Your task to perform on an android device: Open the Play Movies app and select the watchlist tab. Image 0: 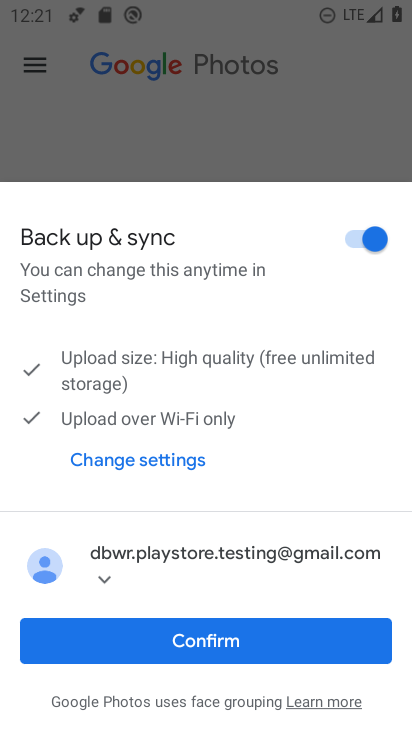
Step 0: press home button
Your task to perform on an android device: Open the Play Movies app and select the watchlist tab. Image 1: 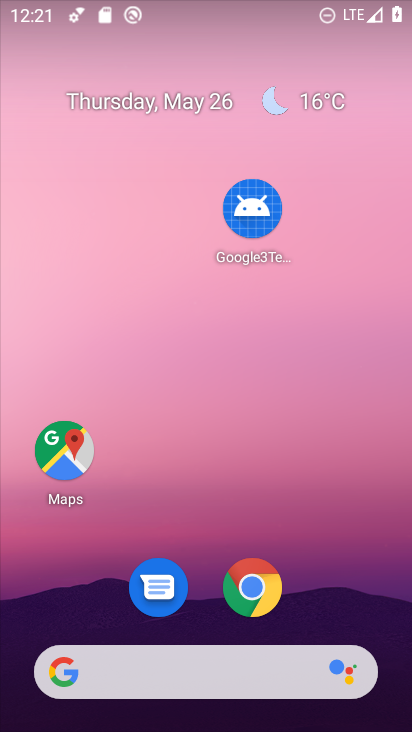
Step 1: drag from (128, 655) to (121, 2)
Your task to perform on an android device: Open the Play Movies app and select the watchlist tab. Image 2: 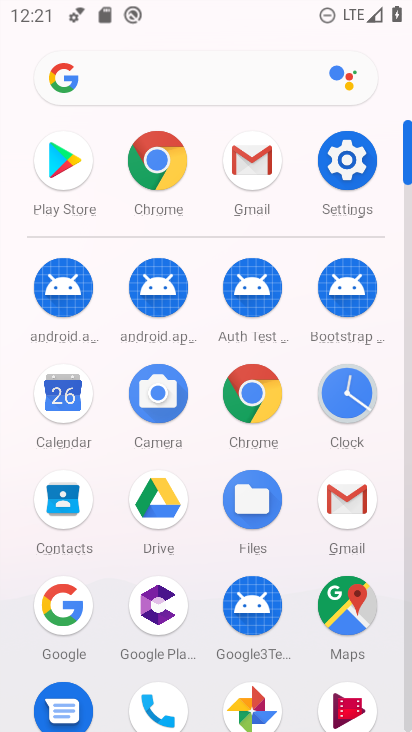
Step 2: click (359, 711)
Your task to perform on an android device: Open the Play Movies app and select the watchlist tab. Image 3: 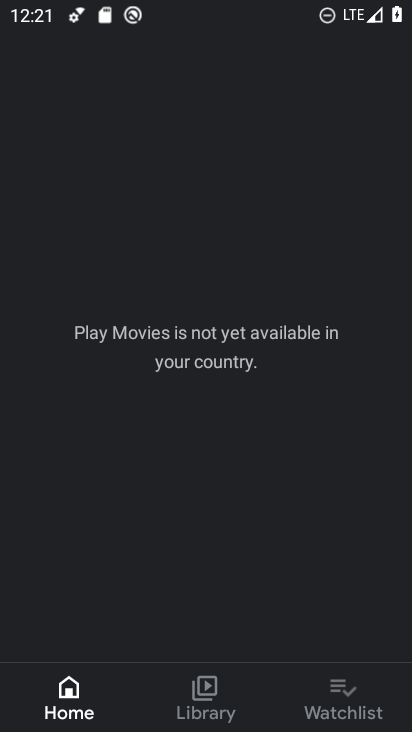
Step 3: click (316, 682)
Your task to perform on an android device: Open the Play Movies app and select the watchlist tab. Image 4: 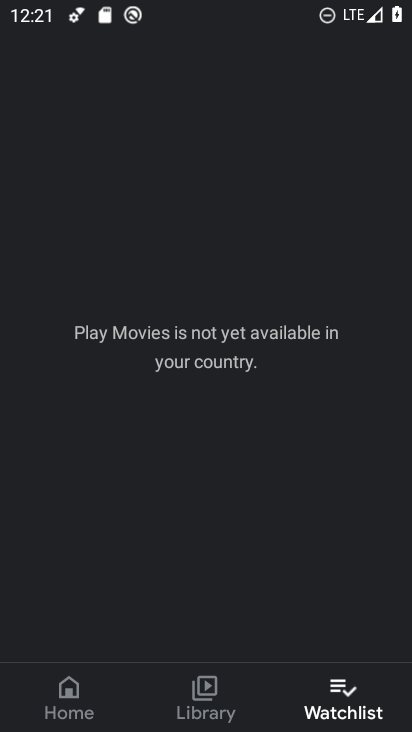
Step 4: task complete